Your task to perform on an android device: Open privacy settings Image 0: 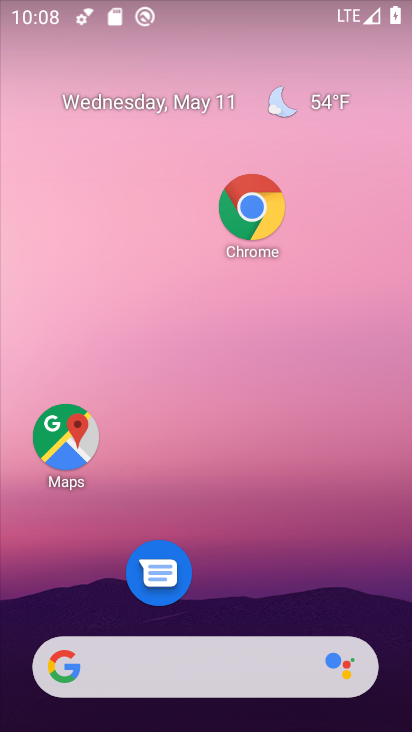
Step 0: drag from (298, 684) to (328, 8)
Your task to perform on an android device: Open privacy settings Image 1: 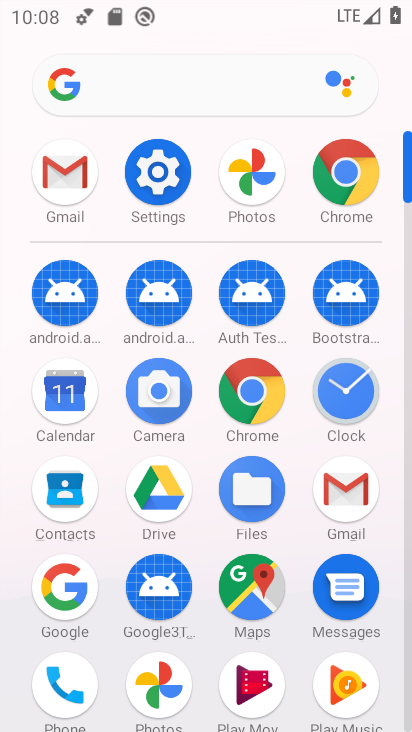
Step 1: click (168, 168)
Your task to perform on an android device: Open privacy settings Image 2: 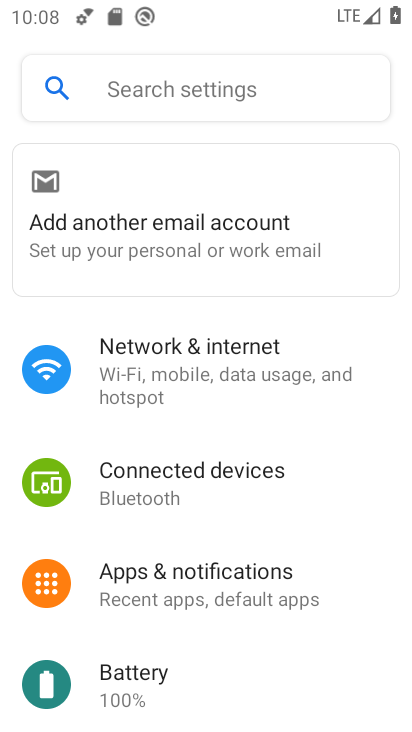
Step 2: drag from (207, 629) to (236, 112)
Your task to perform on an android device: Open privacy settings Image 3: 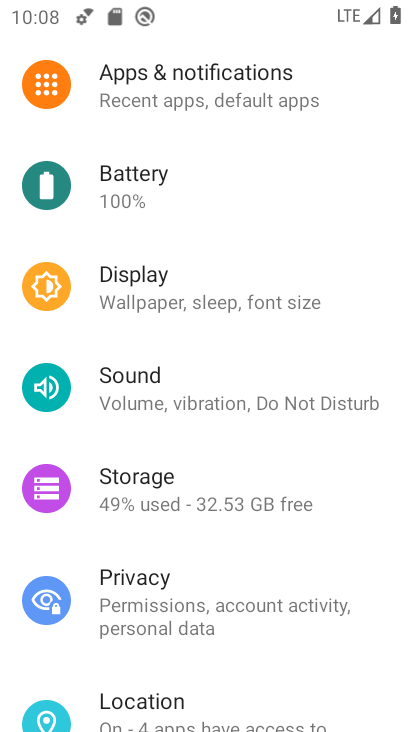
Step 3: click (179, 605)
Your task to perform on an android device: Open privacy settings Image 4: 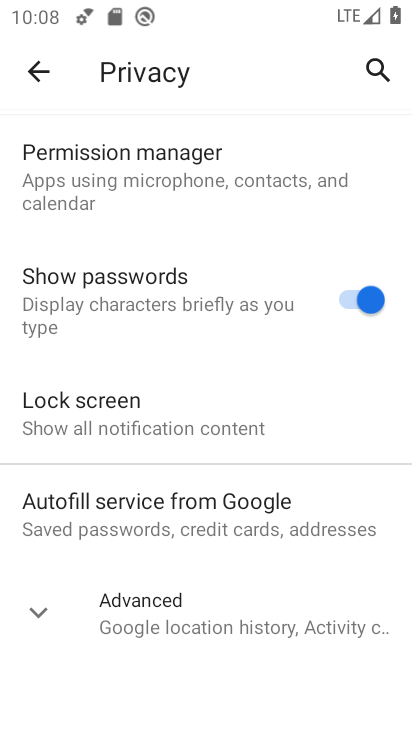
Step 4: task complete